Your task to perform on an android device: What's on my calendar tomorrow? Image 0: 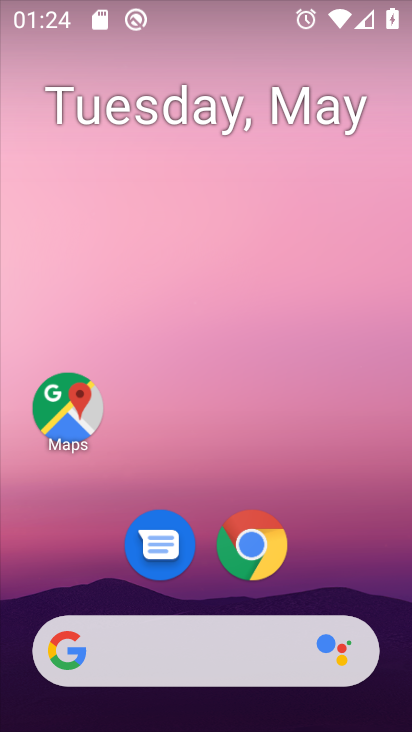
Step 0: drag from (346, 550) to (287, 603)
Your task to perform on an android device: What's on my calendar tomorrow? Image 1: 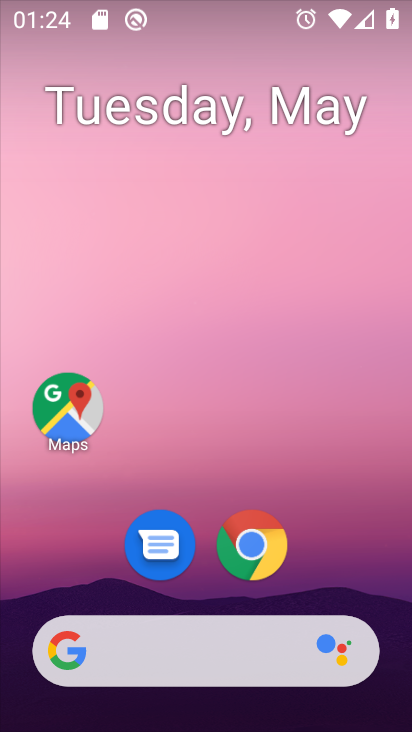
Step 1: drag from (361, 535) to (297, 8)
Your task to perform on an android device: What's on my calendar tomorrow? Image 2: 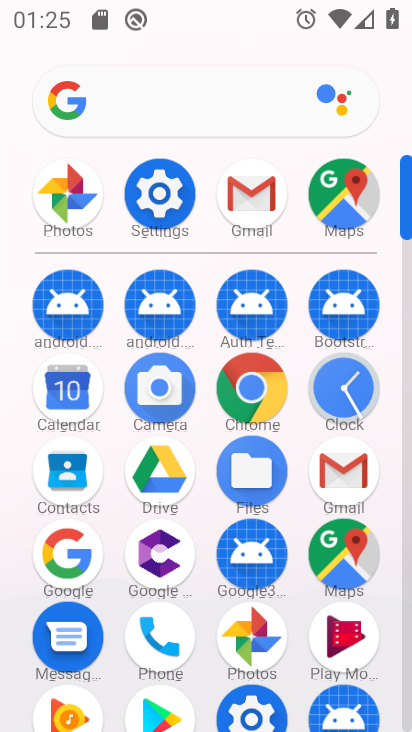
Step 2: click (85, 388)
Your task to perform on an android device: What's on my calendar tomorrow? Image 3: 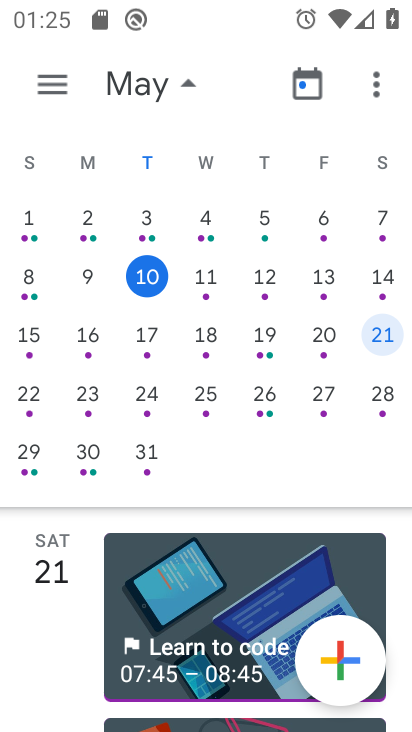
Step 3: click (198, 279)
Your task to perform on an android device: What's on my calendar tomorrow? Image 4: 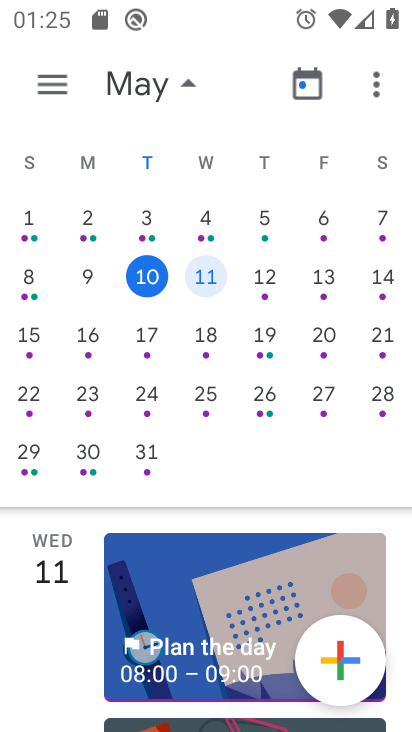
Step 4: task complete